Your task to perform on an android device: Open calendar and show me the third week of next month Image 0: 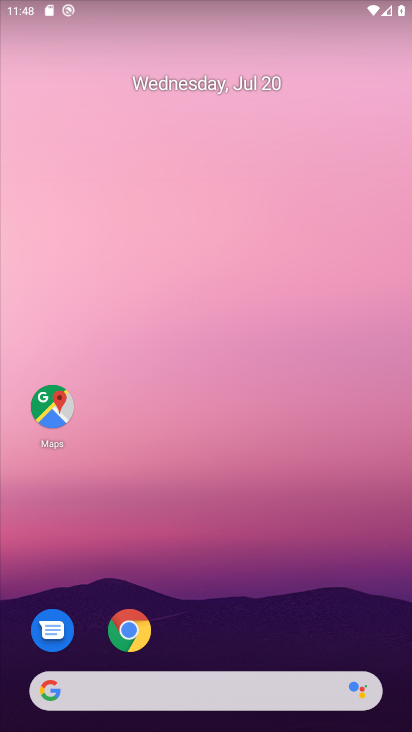
Step 0: drag from (200, 582) to (216, 220)
Your task to perform on an android device: Open calendar and show me the third week of next month Image 1: 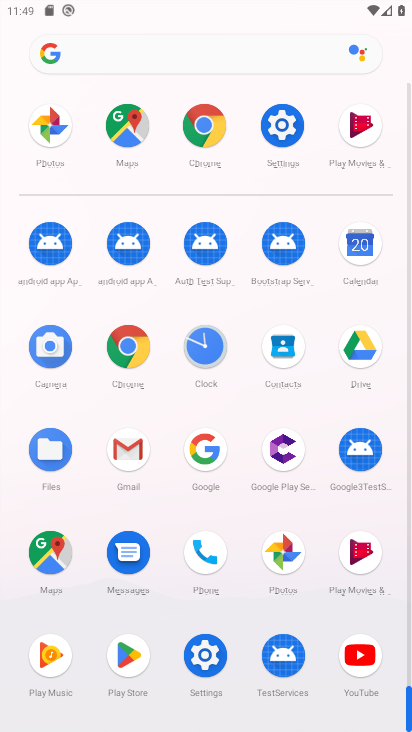
Step 1: drag from (162, 532) to (172, 207)
Your task to perform on an android device: Open calendar and show me the third week of next month Image 2: 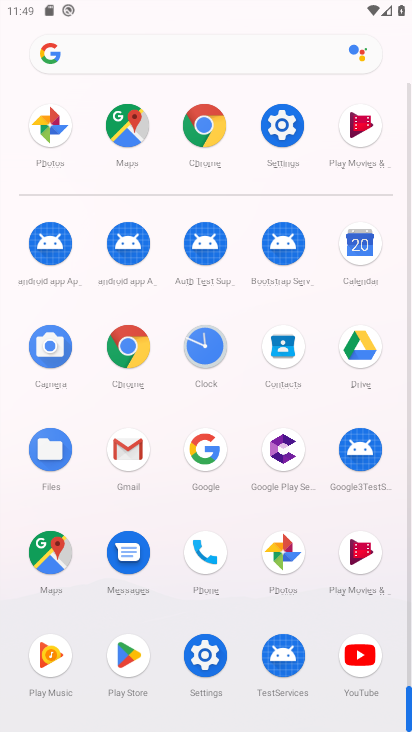
Step 2: click (353, 236)
Your task to perform on an android device: Open calendar and show me the third week of next month Image 3: 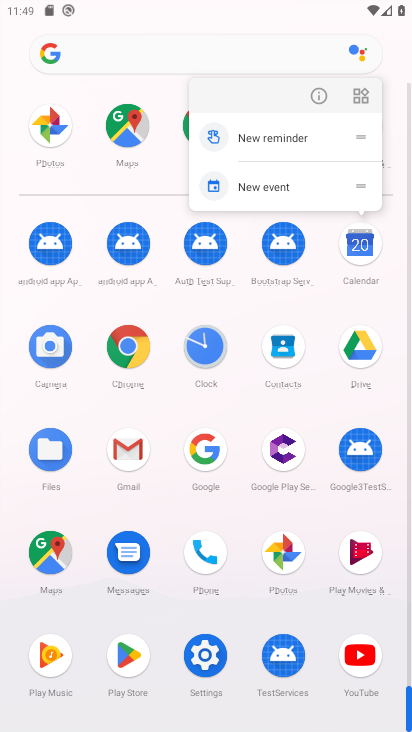
Step 3: click (314, 101)
Your task to perform on an android device: Open calendar and show me the third week of next month Image 4: 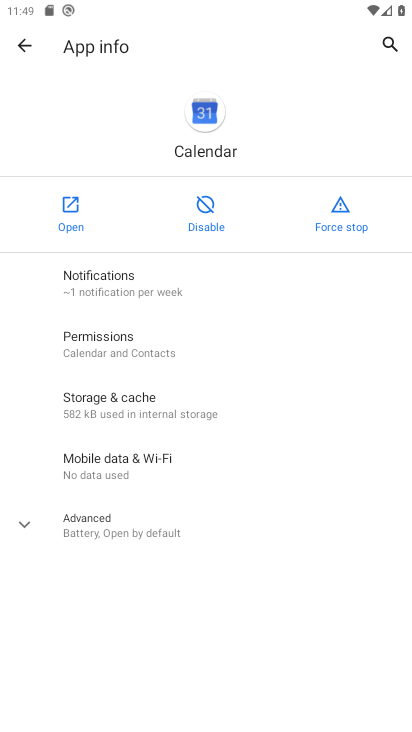
Step 4: click (60, 211)
Your task to perform on an android device: Open calendar and show me the third week of next month Image 5: 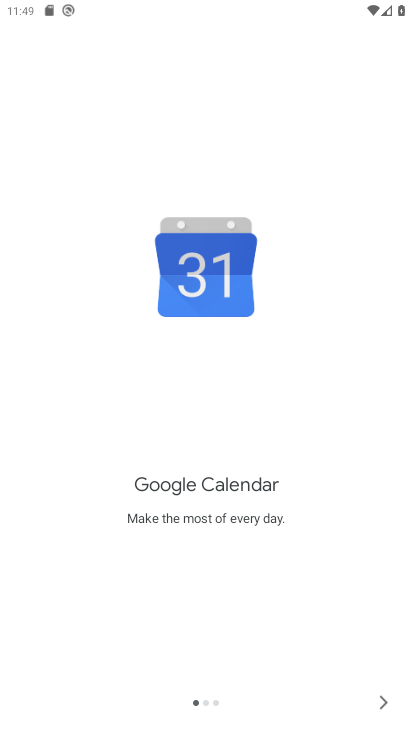
Step 5: click (391, 705)
Your task to perform on an android device: Open calendar and show me the third week of next month Image 6: 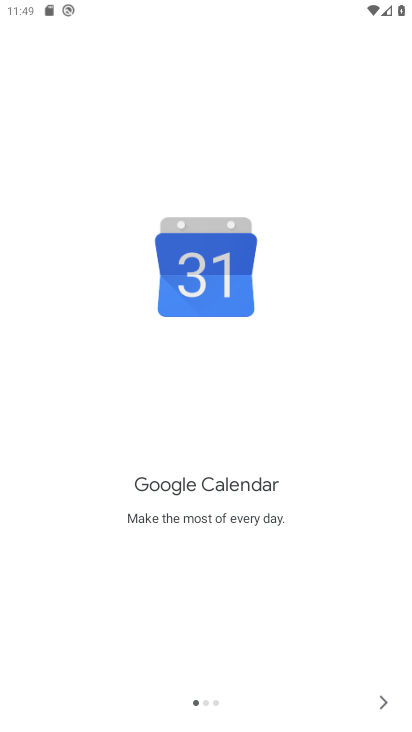
Step 6: click (387, 705)
Your task to perform on an android device: Open calendar and show me the third week of next month Image 7: 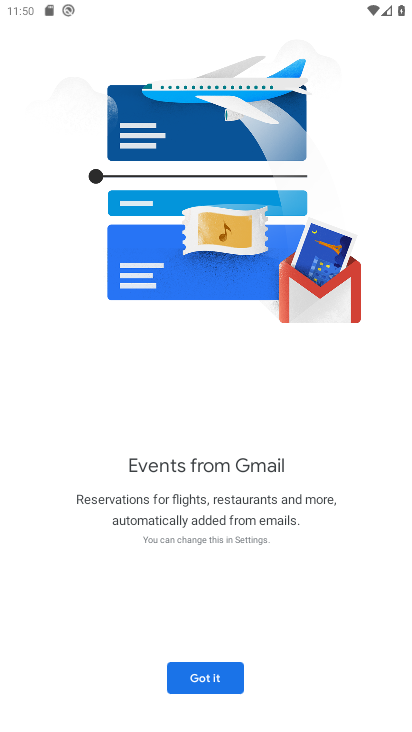
Step 7: click (195, 686)
Your task to perform on an android device: Open calendar and show me the third week of next month Image 8: 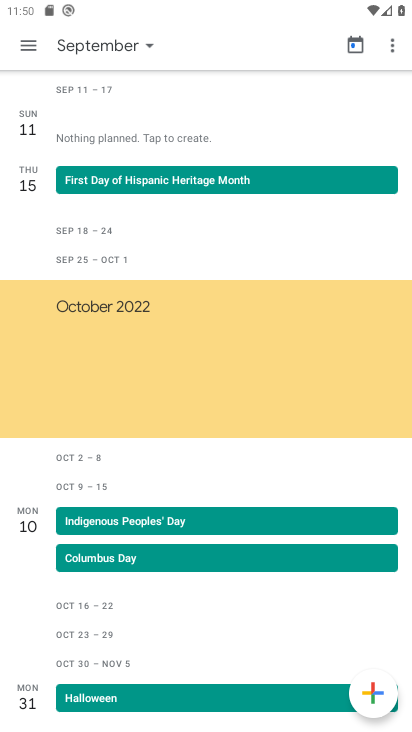
Step 8: drag from (159, 572) to (184, 266)
Your task to perform on an android device: Open calendar and show me the third week of next month Image 9: 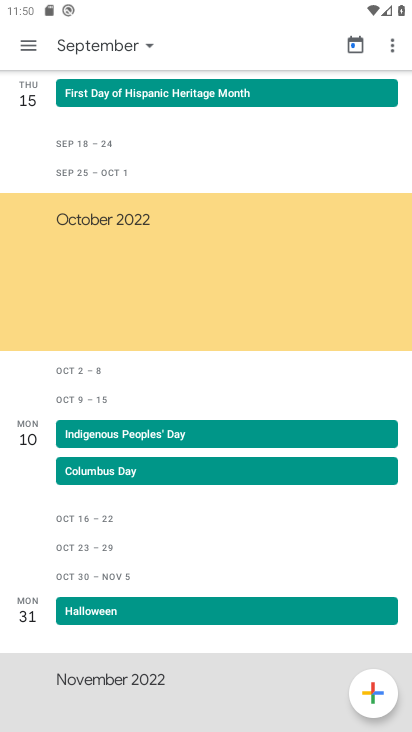
Step 9: click (97, 35)
Your task to perform on an android device: Open calendar and show me the third week of next month Image 10: 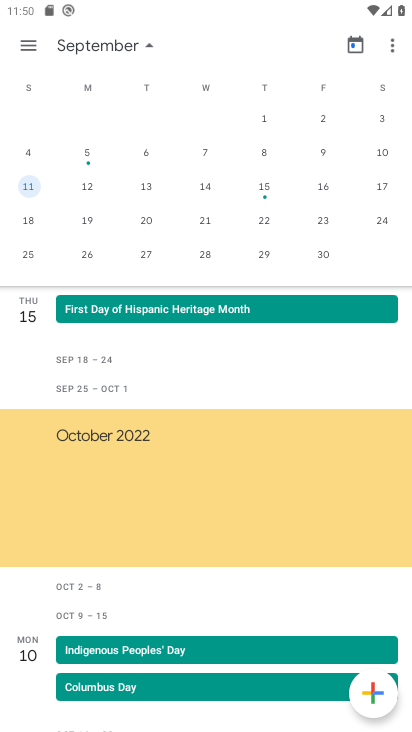
Step 10: drag from (63, 189) to (407, 131)
Your task to perform on an android device: Open calendar and show me the third week of next month Image 11: 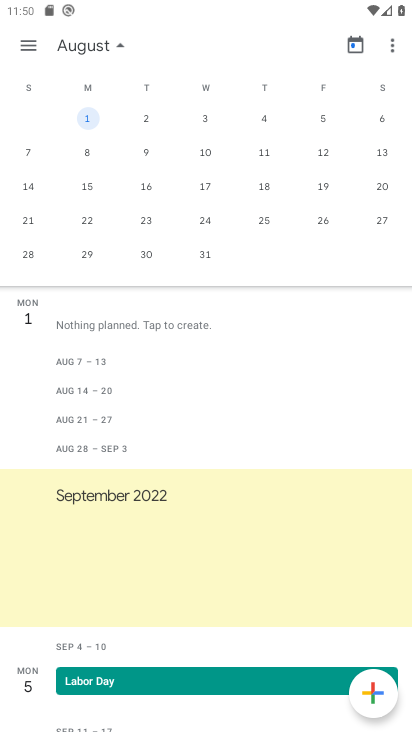
Step 11: click (321, 187)
Your task to perform on an android device: Open calendar and show me the third week of next month Image 12: 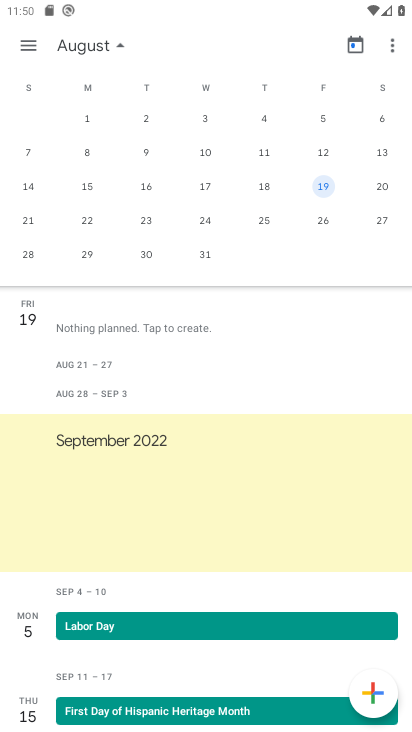
Step 12: task complete